Your task to perform on an android device: Open calendar and show me the first week of next month Image 0: 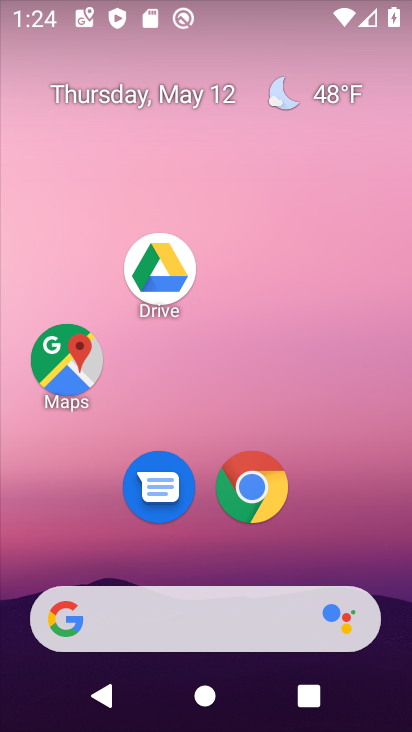
Step 0: drag from (243, 567) to (166, 46)
Your task to perform on an android device: Open calendar and show me the first week of next month Image 1: 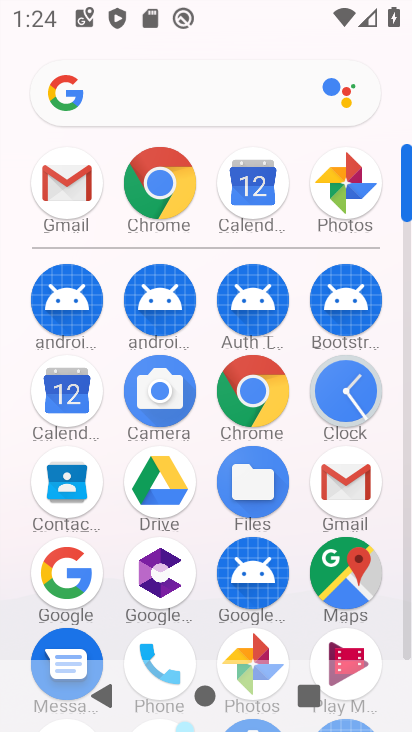
Step 1: click (64, 415)
Your task to perform on an android device: Open calendar and show me the first week of next month Image 2: 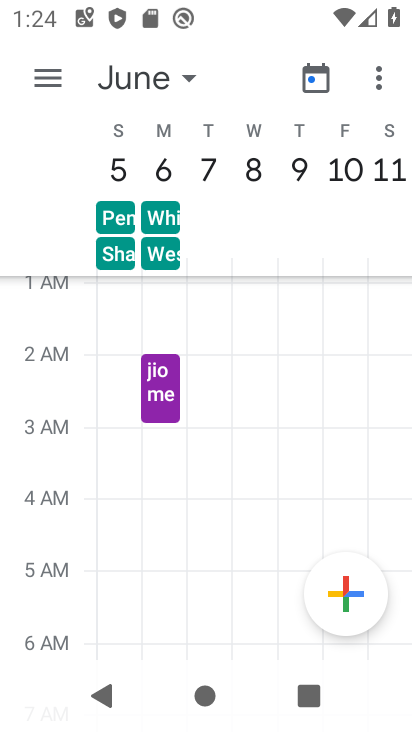
Step 2: task complete